Your task to perform on an android device: change the clock style Image 0: 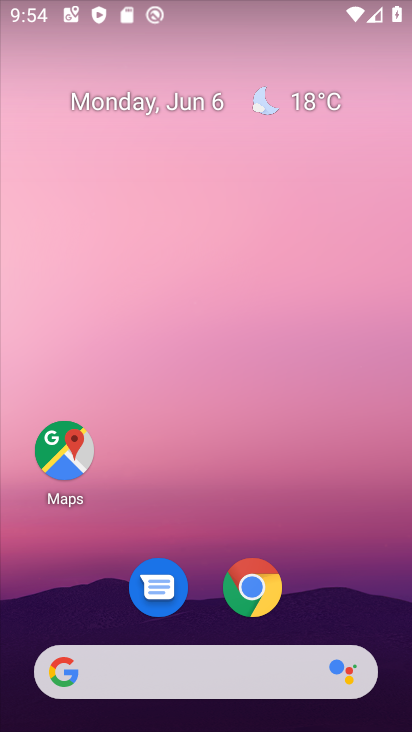
Step 0: drag from (338, 557) to (220, 8)
Your task to perform on an android device: change the clock style Image 1: 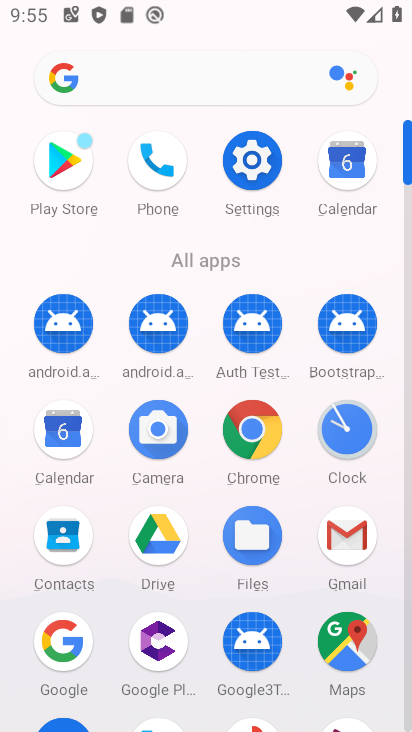
Step 1: click (250, 160)
Your task to perform on an android device: change the clock style Image 2: 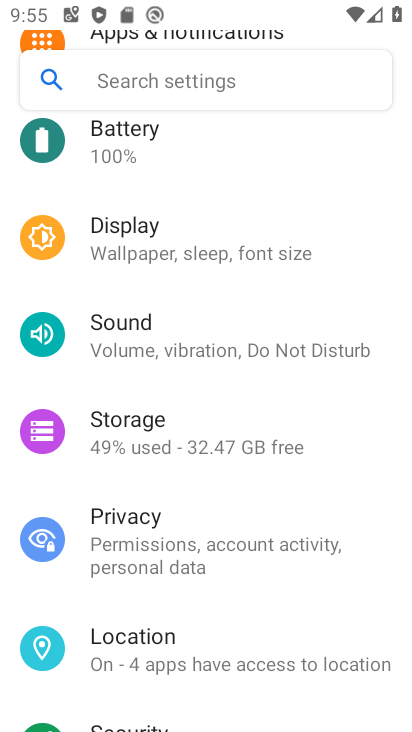
Step 2: press home button
Your task to perform on an android device: change the clock style Image 3: 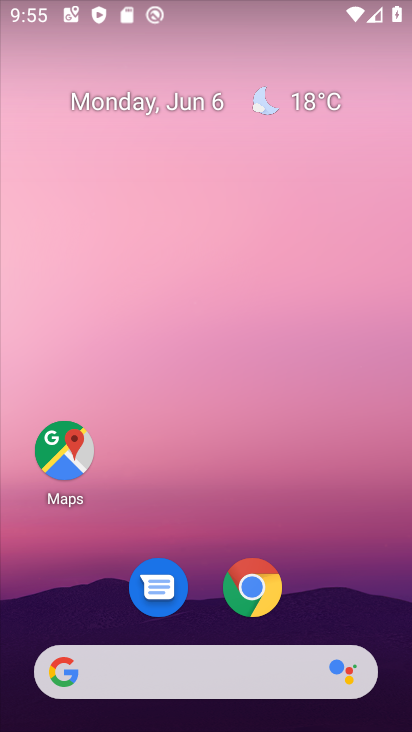
Step 3: drag from (348, 538) to (250, 59)
Your task to perform on an android device: change the clock style Image 4: 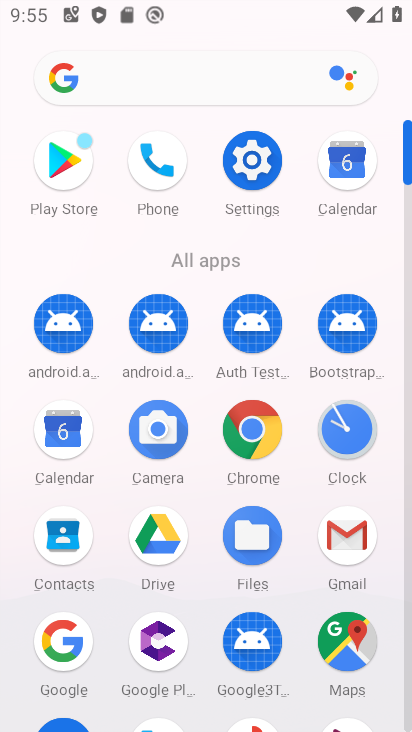
Step 4: click (349, 437)
Your task to perform on an android device: change the clock style Image 5: 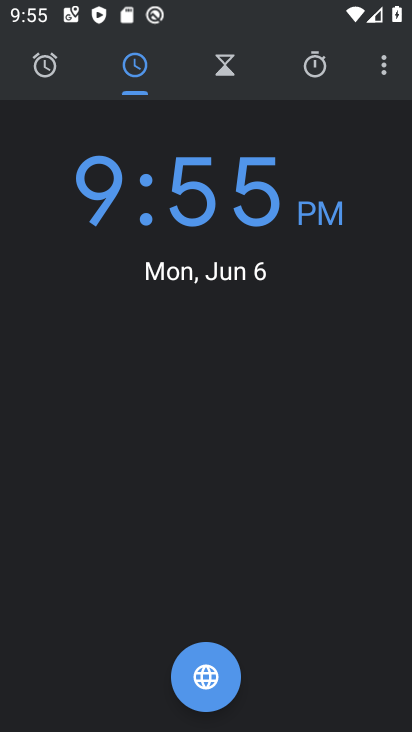
Step 5: click (377, 69)
Your task to perform on an android device: change the clock style Image 6: 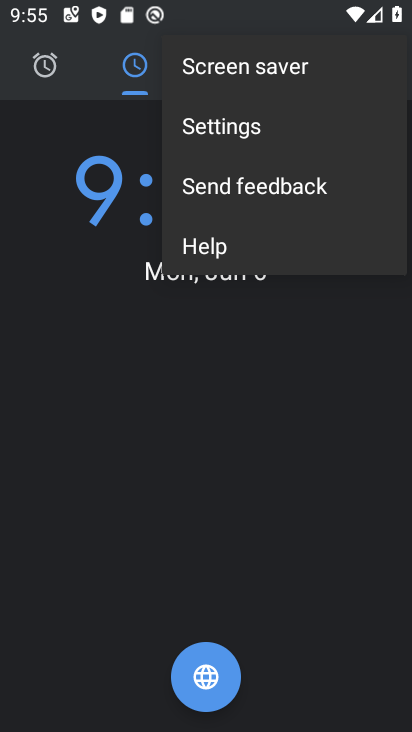
Step 6: click (312, 125)
Your task to perform on an android device: change the clock style Image 7: 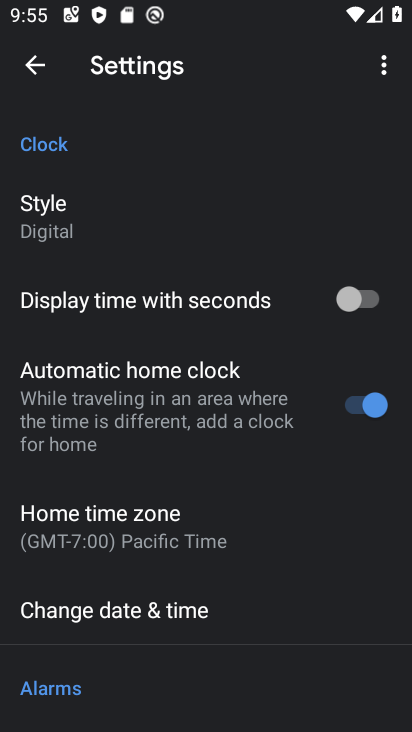
Step 7: click (133, 219)
Your task to perform on an android device: change the clock style Image 8: 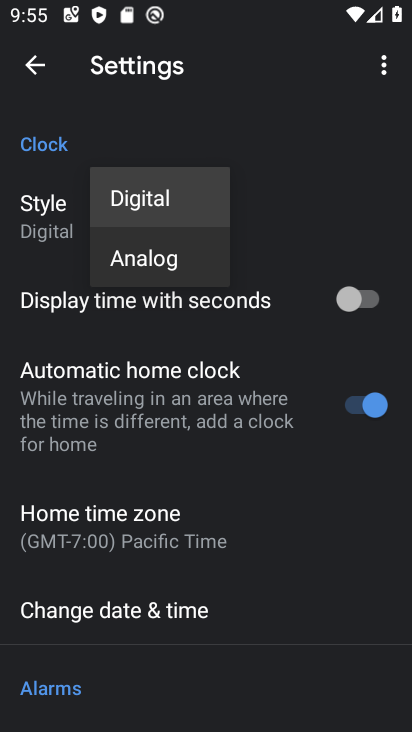
Step 8: click (143, 253)
Your task to perform on an android device: change the clock style Image 9: 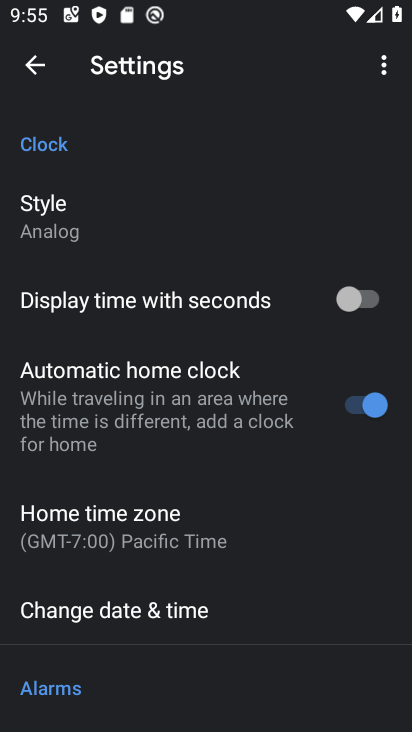
Step 9: task complete